Your task to perform on an android device: Search for Mexican restaurants on Maps Image 0: 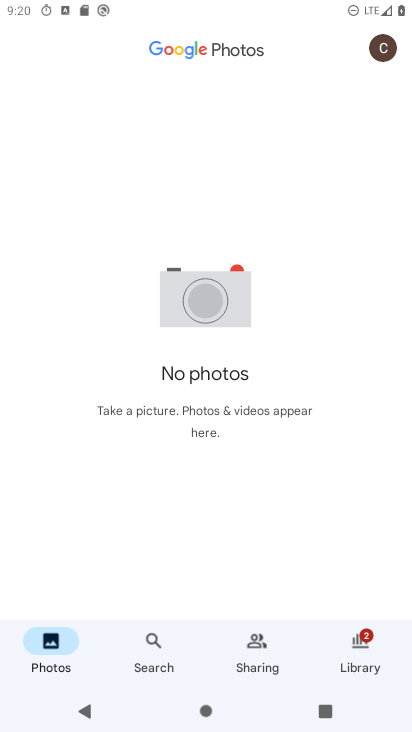
Step 0: press home button
Your task to perform on an android device: Search for Mexican restaurants on Maps Image 1: 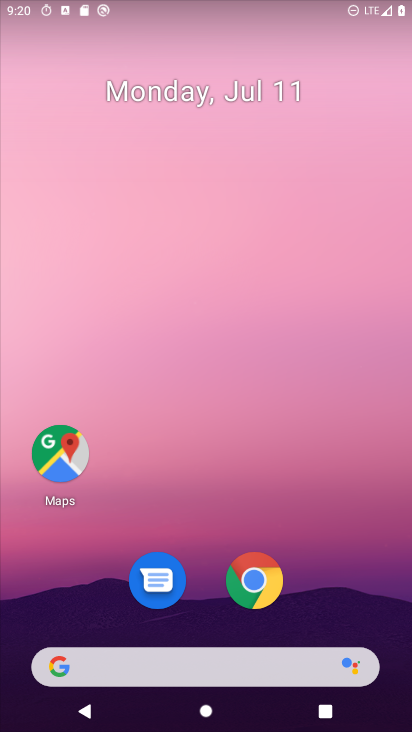
Step 1: click (63, 466)
Your task to perform on an android device: Search for Mexican restaurants on Maps Image 2: 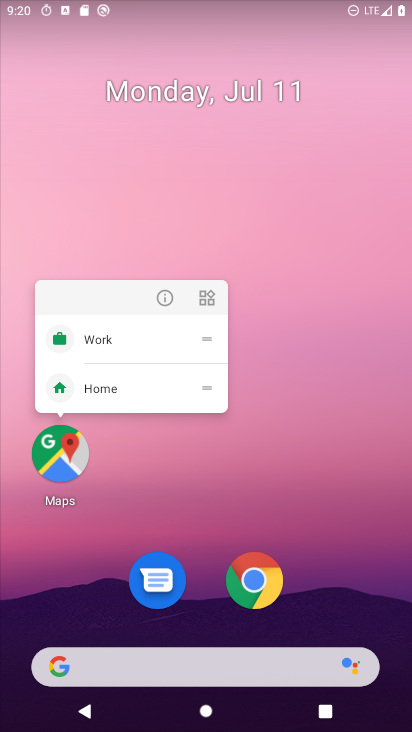
Step 2: click (63, 468)
Your task to perform on an android device: Search for Mexican restaurants on Maps Image 3: 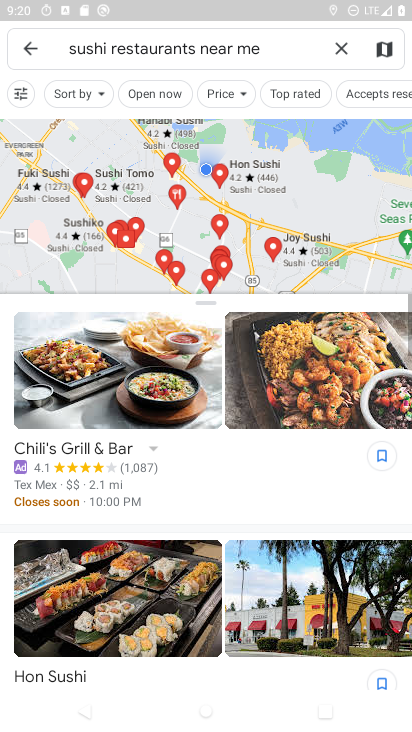
Step 3: click (341, 46)
Your task to perform on an android device: Search for Mexican restaurants on Maps Image 4: 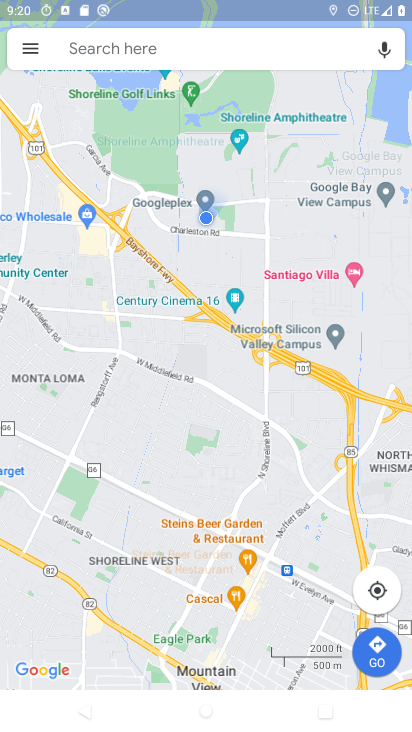
Step 4: click (237, 46)
Your task to perform on an android device: Search for Mexican restaurants on Maps Image 5: 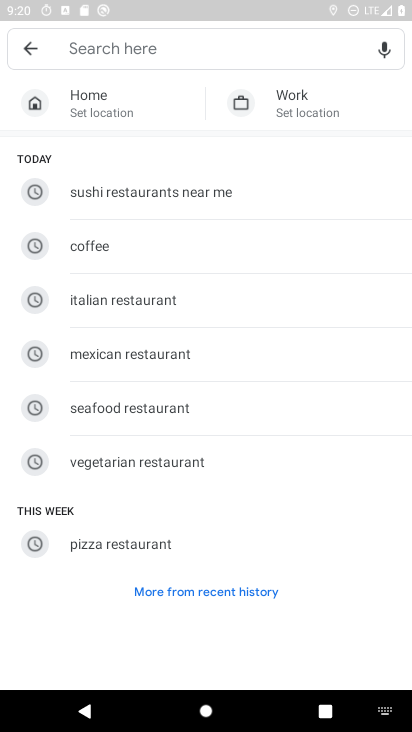
Step 5: click (168, 347)
Your task to perform on an android device: Search for Mexican restaurants on Maps Image 6: 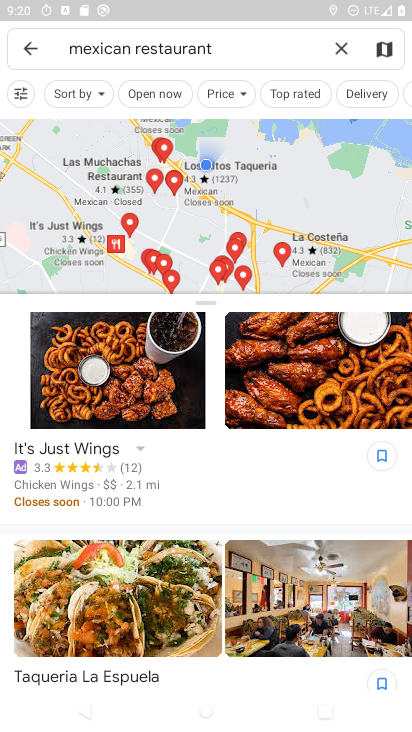
Step 6: task complete